Your task to perform on an android device: toggle priority inbox in the gmail app Image 0: 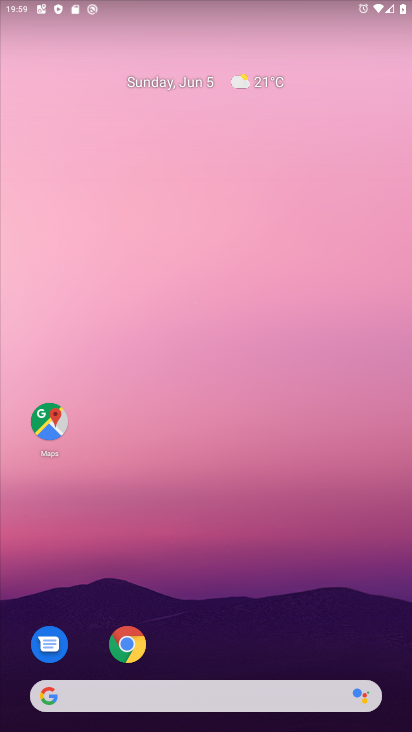
Step 0: press home button
Your task to perform on an android device: toggle priority inbox in the gmail app Image 1: 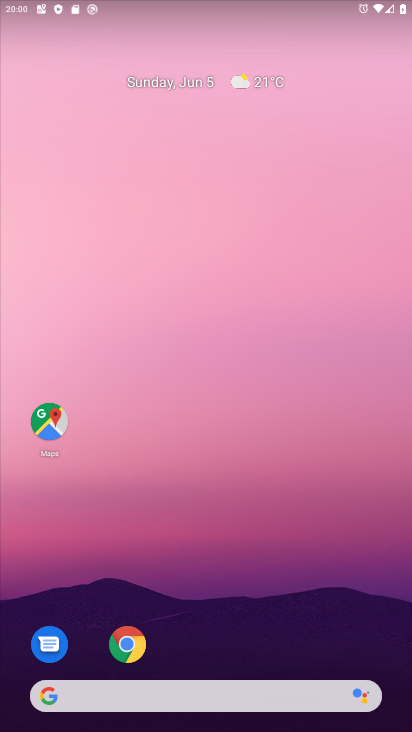
Step 1: drag from (17, 637) to (351, 138)
Your task to perform on an android device: toggle priority inbox in the gmail app Image 2: 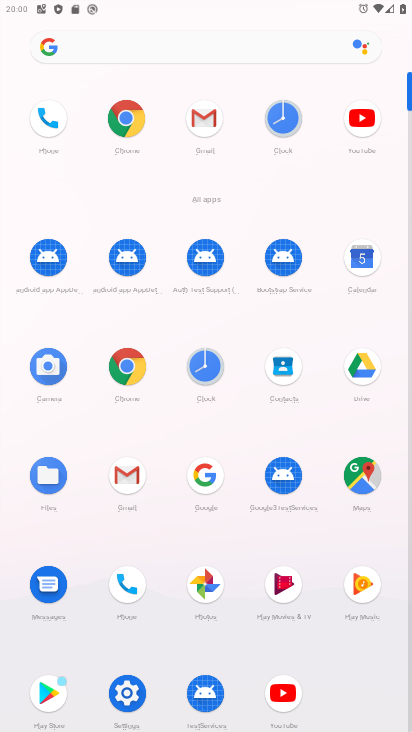
Step 2: click (209, 113)
Your task to perform on an android device: toggle priority inbox in the gmail app Image 3: 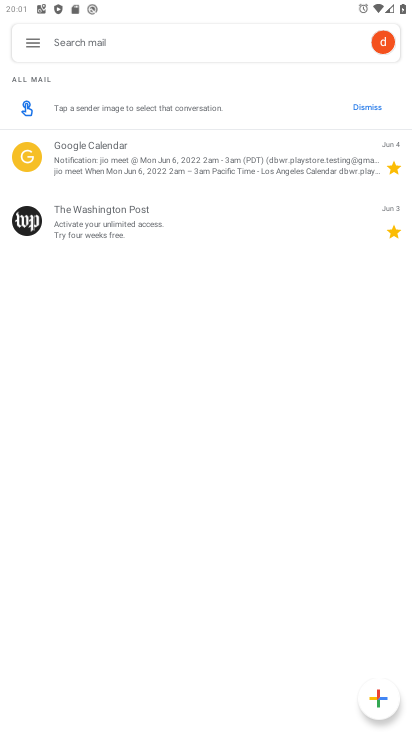
Step 3: task complete